Your task to perform on an android device: open app "Nova Launcher" (install if not already installed), go to login, and select forgot password Image 0: 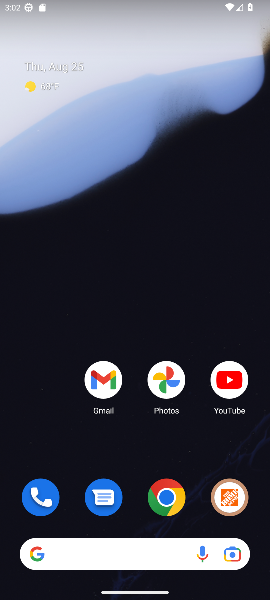
Step 0: drag from (139, 503) to (161, 108)
Your task to perform on an android device: open app "Nova Launcher" (install if not already installed), go to login, and select forgot password Image 1: 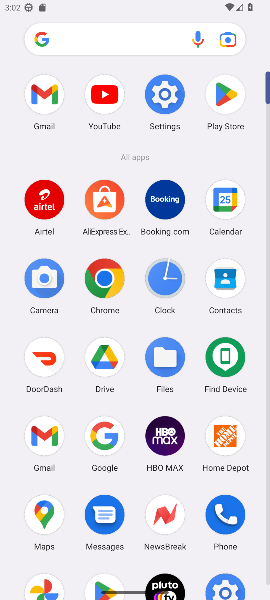
Step 1: click (210, 99)
Your task to perform on an android device: open app "Nova Launcher" (install if not already installed), go to login, and select forgot password Image 2: 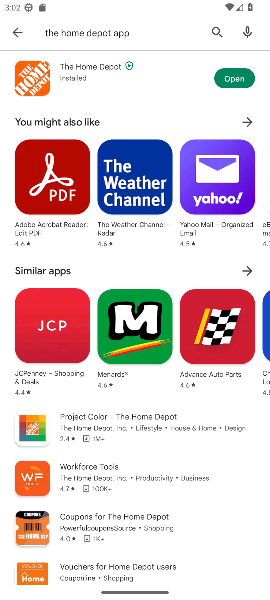
Step 2: click (11, 23)
Your task to perform on an android device: open app "Nova Launcher" (install if not already installed), go to login, and select forgot password Image 3: 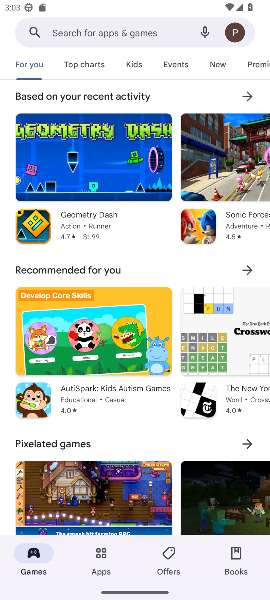
Step 3: click (107, 18)
Your task to perform on an android device: open app "Nova Launcher" (install if not already installed), go to login, and select forgot password Image 4: 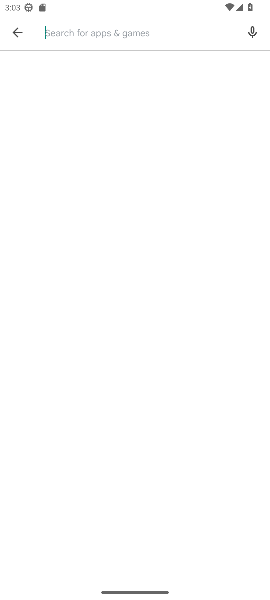
Step 4: click (132, 30)
Your task to perform on an android device: open app "Nova Launcher" (install if not already installed), go to login, and select forgot password Image 5: 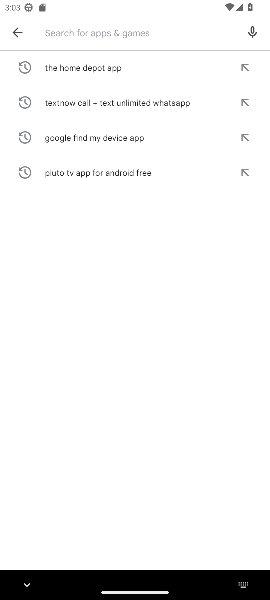
Step 5: type "Nova Launcher "
Your task to perform on an android device: open app "Nova Launcher" (install if not already installed), go to login, and select forgot password Image 6: 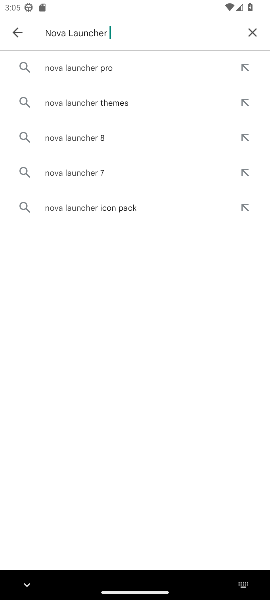
Step 6: click (115, 72)
Your task to perform on an android device: open app "Nova Launcher" (install if not already installed), go to login, and select forgot password Image 7: 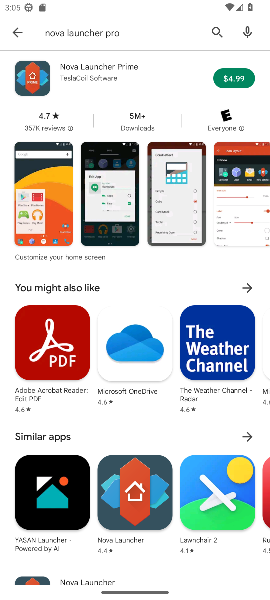
Step 7: task complete